Your task to perform on an android device: Turn off the flashlight Image 0: 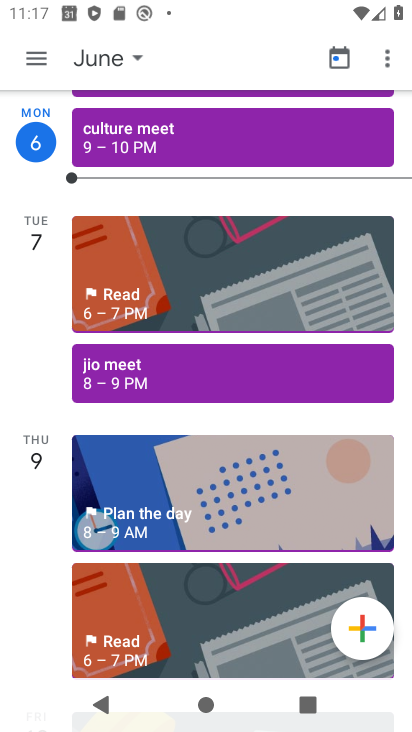
Step 0: press back button
Your task to perform on an android device: Turn off the flashlight Image 1: 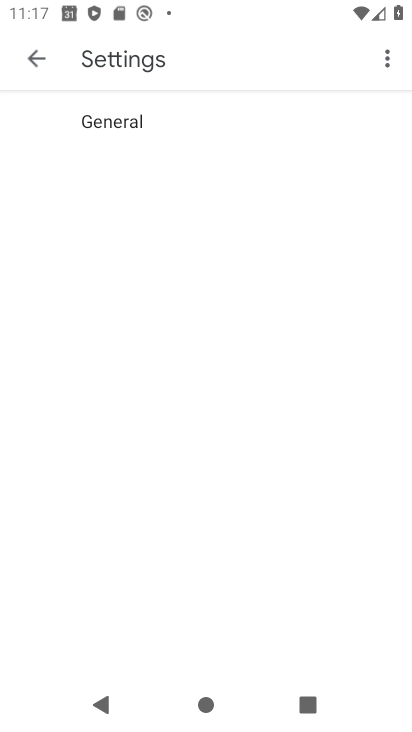
Step 1: click (47, 52)
Your task to perform on an android device: Turn off the flashlight Image 2: 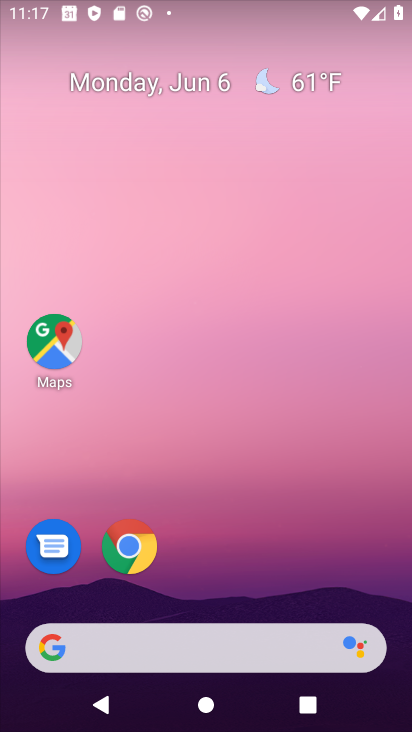
Step 2: drag from (218, 626) to (289, 77)
Your task to perform on an android device: Turn off the flashlight Image 3: 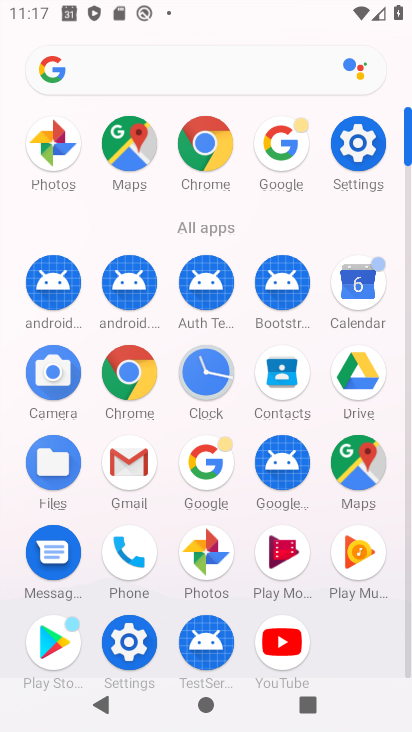
Step 3: click (343, 147)
Your task to perform on an android device: Turn off the flashlight Image 4: 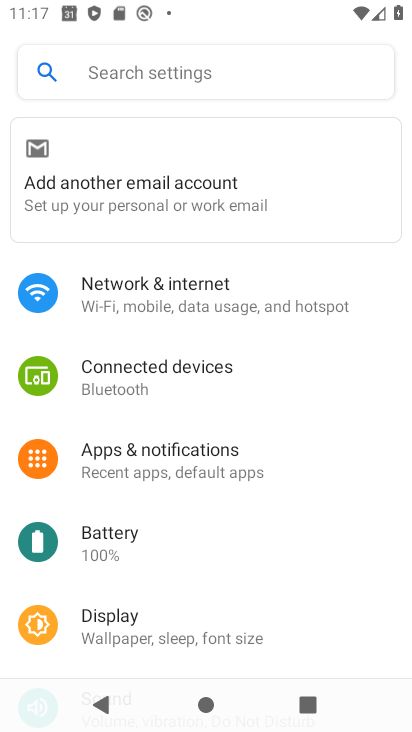
Step 4: click (149, 86)
Your task to perform on an android device: Turn off the flashlight Image 5: 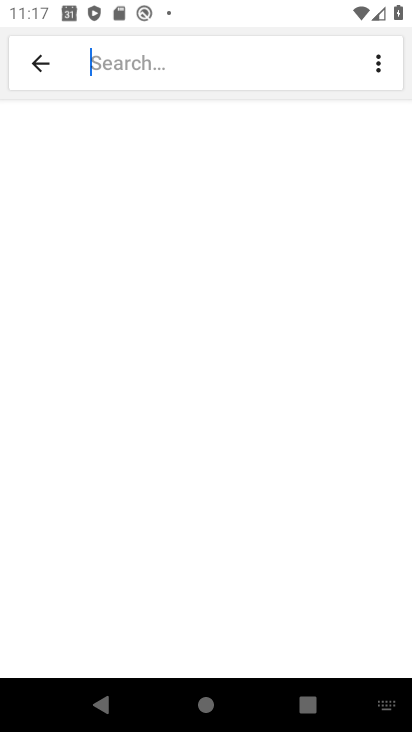
Step 5: type "flashlight"
Your task to perform on an android device: Turn off the flashlight Image 6: 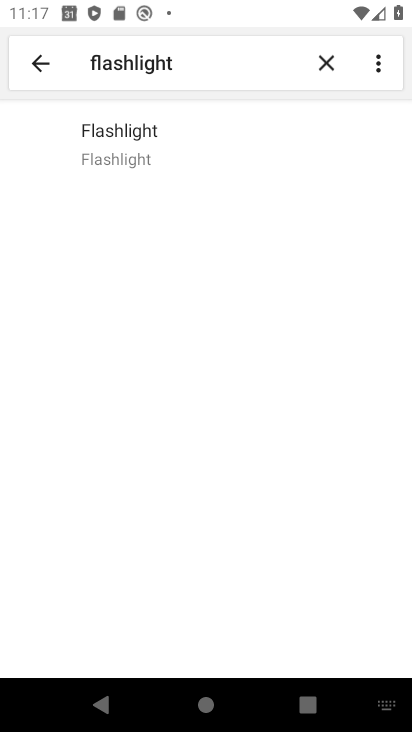
Step 6: click (91, 155)
Your task to perform on an android device: Turn off the flashlight Image 7: 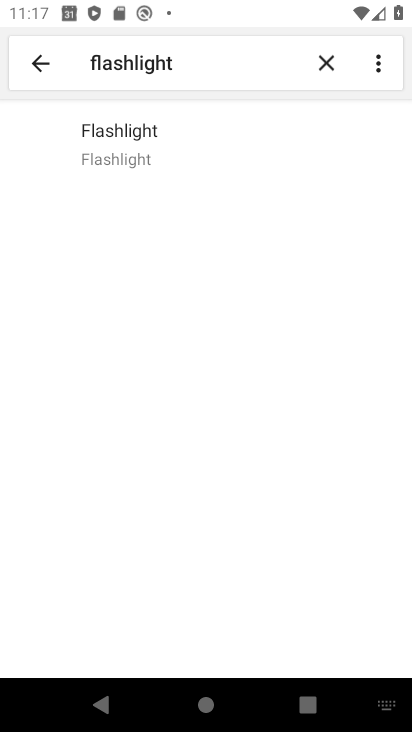
Step 7: task complete